Your task to perform on an android device: set an alarm Image 0: 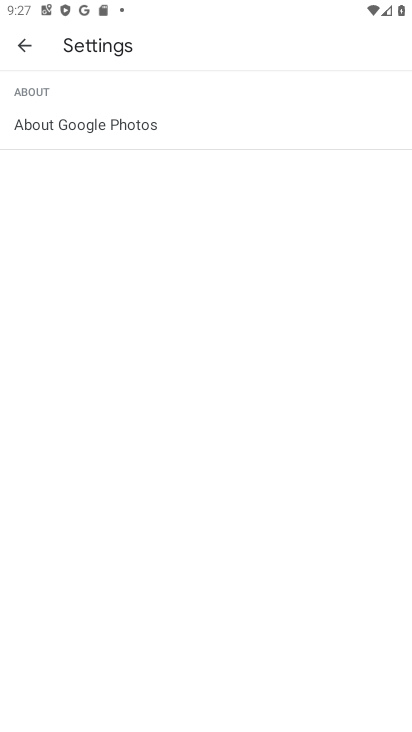
Step 0: press home button
Your task to perform on an android device: set an alarm Image 1: 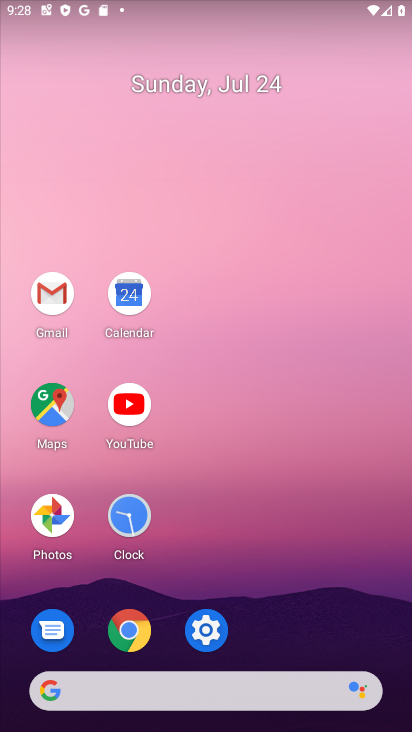
Step 1: click (127, 517)
Your task to perform on an android device: set an alarm Image 2: 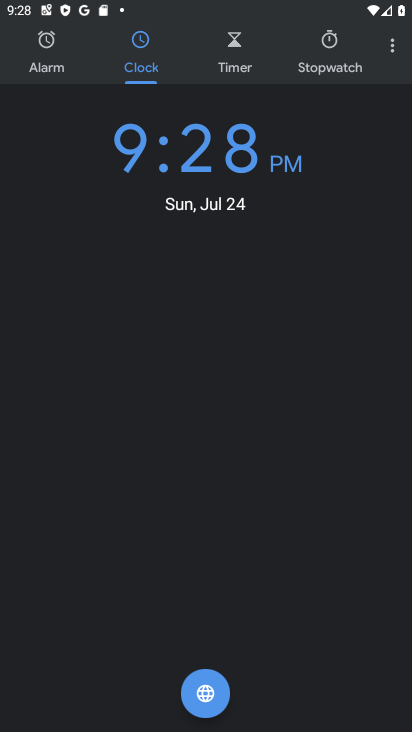
Step 2: click (44, 49)
Your task to perform on an android device: set an alarm Image 3: 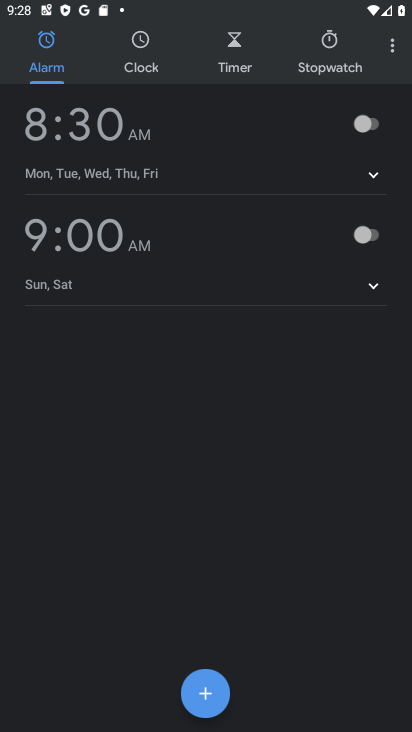
Step 3: click (203, 701)
Your task to perform on an android device: set an alarm Image 4: 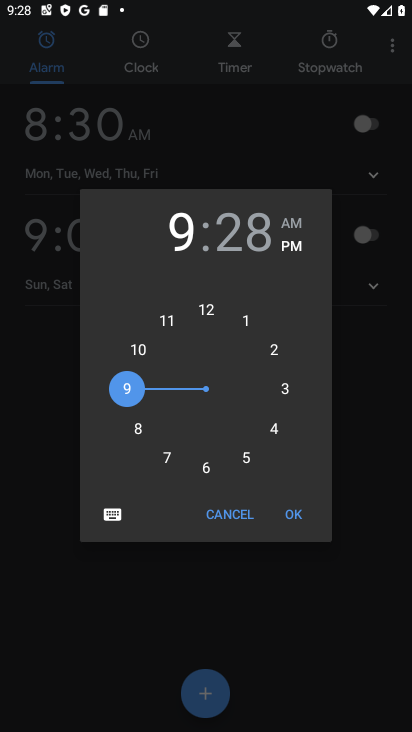
Step 4: click (298, 509)
Your task to perform on an android device: set an alarm Image 5: 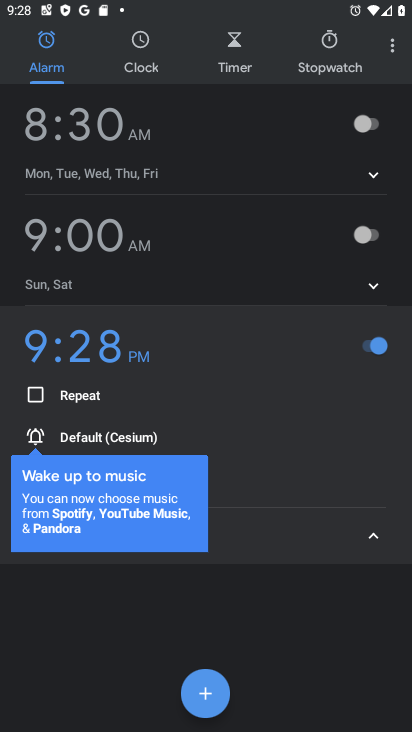
Step 5: task complete